Your task to perform on an android device: Open the stopwatch Image 0: 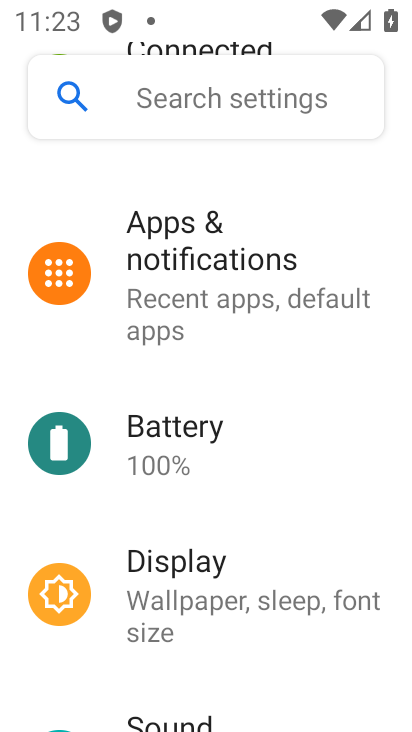
Step 0: press home button
Your task to perform on an android device: Open the stopwatch Image 1: 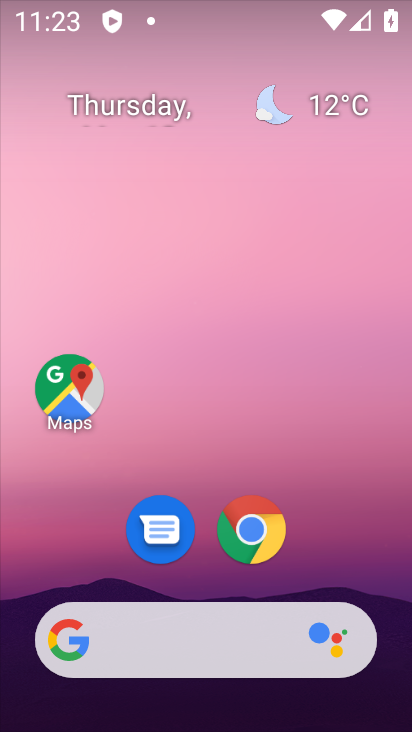
Step 1: drag from (290, 582) to (275, 217)
Your task to perform on an android device: Open the stopwatch Image 2: 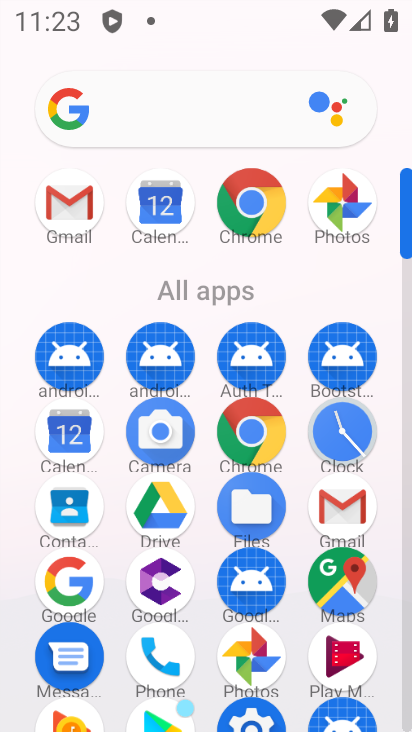
Step 2: click (334, 448)
Your task to perform on an android device: Open the stopwatch Image 3: 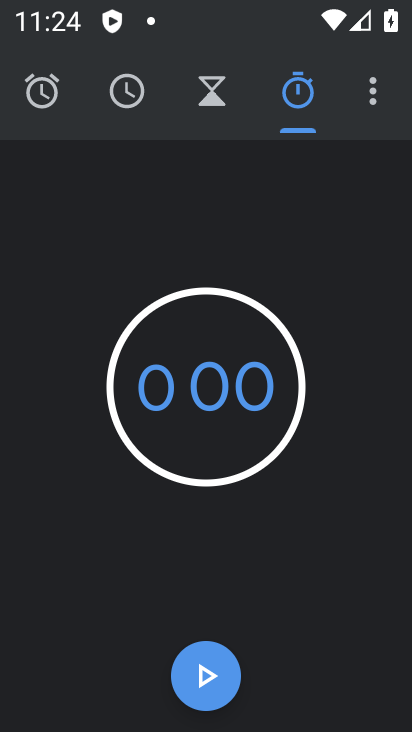
Step 3: task complete